Your task to perform on an android device: change the clock display to digital Image 0: 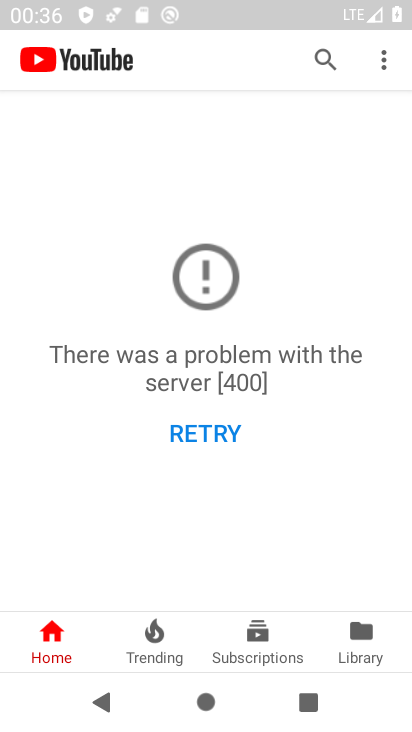
Step 0: press home button
Your task to perform on an android device: change the clock display to digital Image 1: 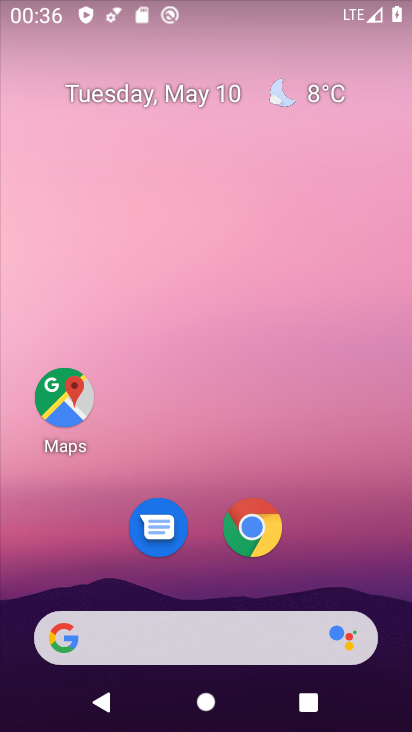
Step 1: drag from (313, 451) to (87, 123)
Your task to perform on an android device: change the clock display to digital Image 2: 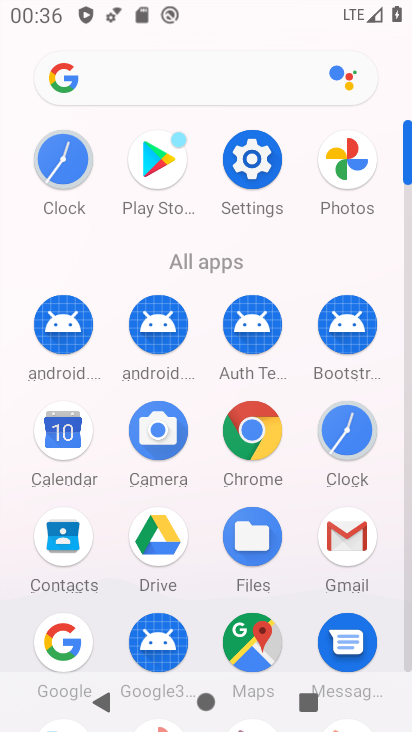
Step 2: click (337, 429)
Your task to perform on an android device: change the clock display to digital Image 3: 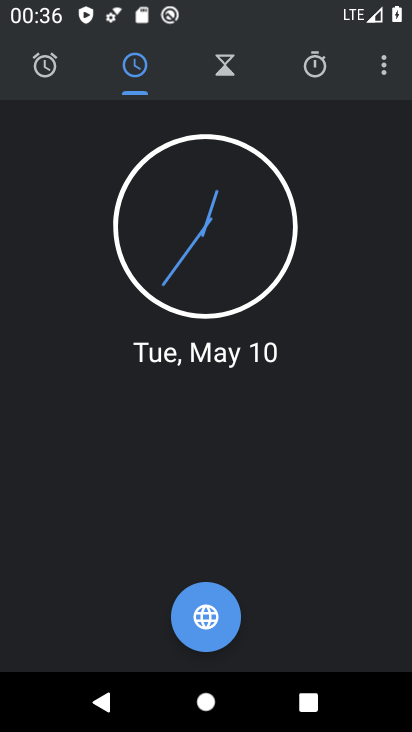
Step 3: click (379, 67)
Your task to perform on an android device: change the clock display to digital Image 4: 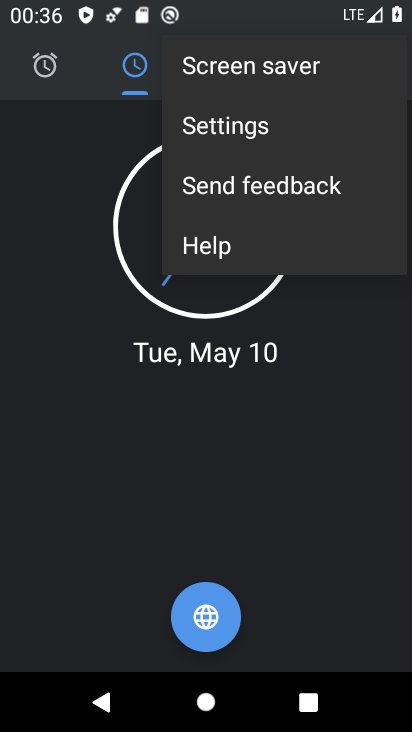
Step 4: click (241, 134)
Your task to perform on an android device: change the clock display to digital Image 5: 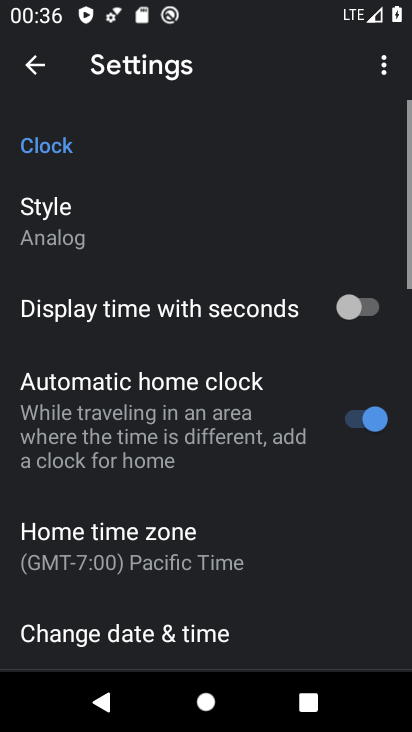
Step 5: click (58, 235)
Your task to perform on an android device: change the clock display to digital Image 6: 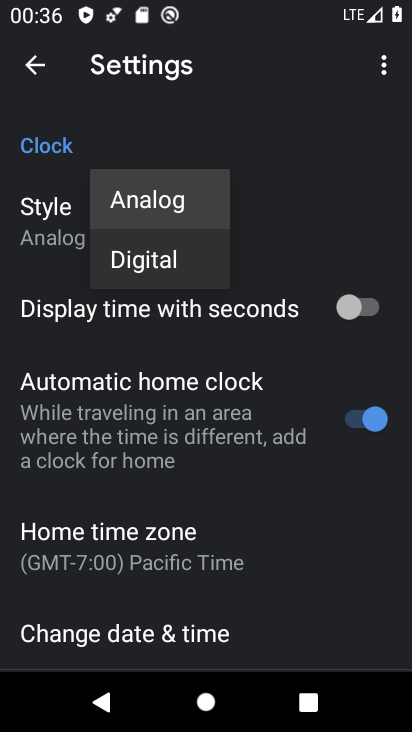
Step 6: click (142, 265)
Your task to perform on an android device: change the clock display to digital Image 7: 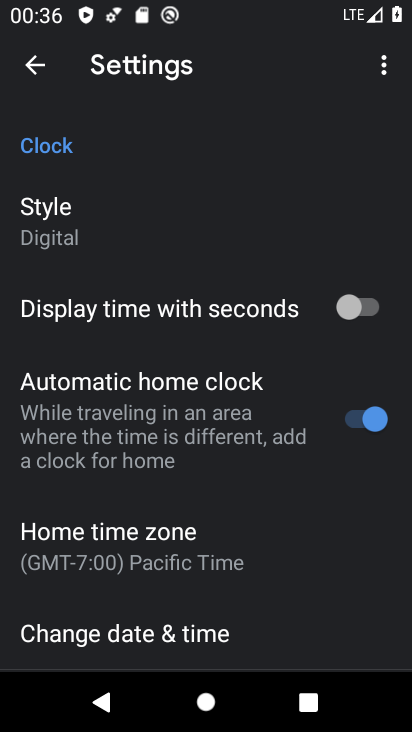
Step 7: task complete